Your task to perform on an android device: Open Chrome and go to settings Image 0: 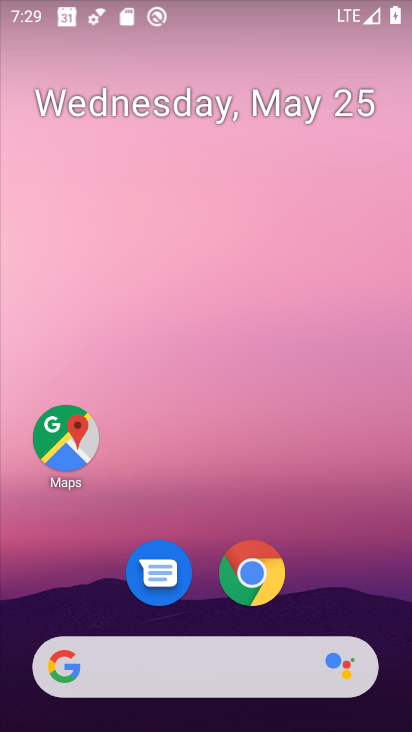
Step 0: click (245, 567)
Your task to perform on an android device: Open Chrome and go to settings Image 1: 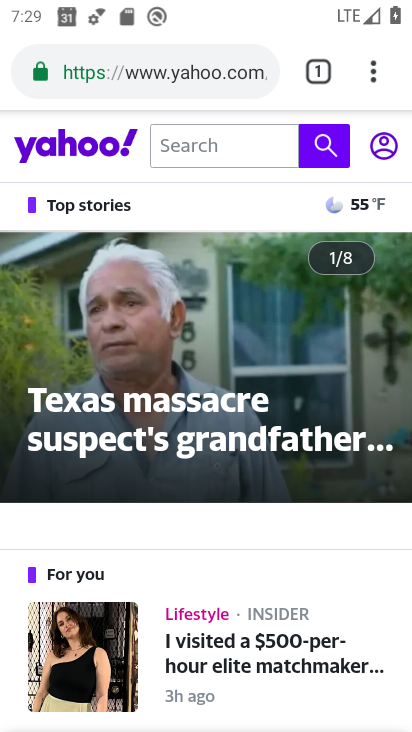
Step 1: click (374, 72)
Your task to perform on an android device: Open Chrome and go to settings Image 2: 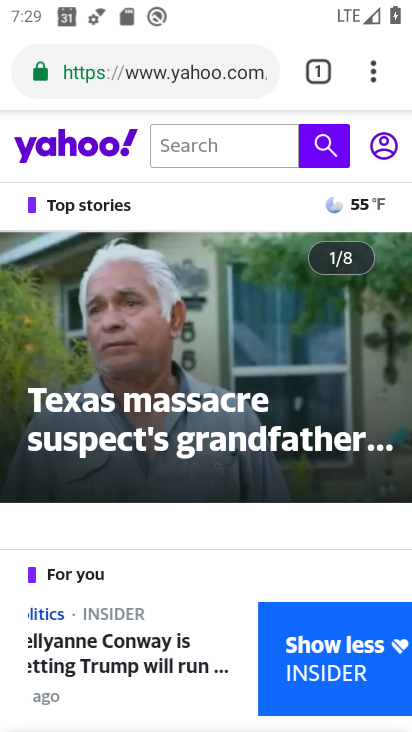
Step 2: click (374, 72)
Your task to perform on an android device: Open Chrome and go to settings Image 3: 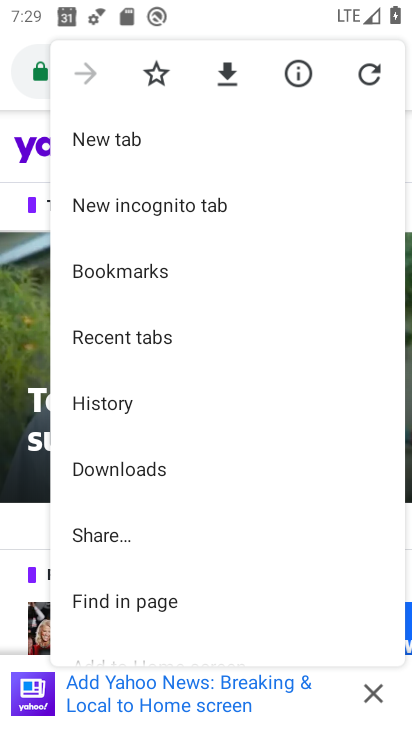
Step 3: drag from (230, 590) to (251, 211)
Your task to perform on an android device: Open Chrome and go to settings Image 4: 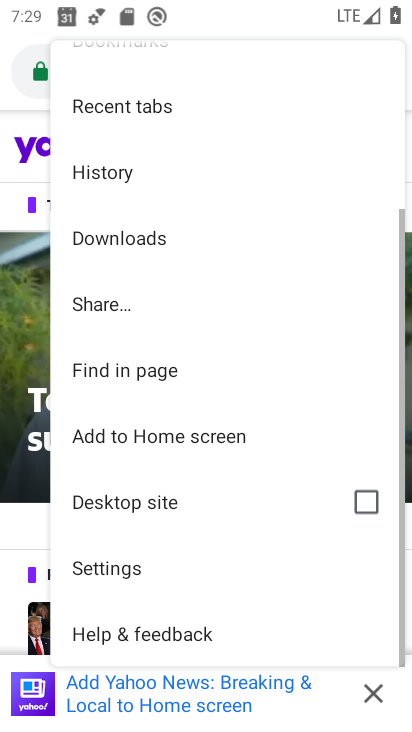
Step 4: click (85, 564)
Your task to perform on an android device: Open Chrome and go to settings Image 5: 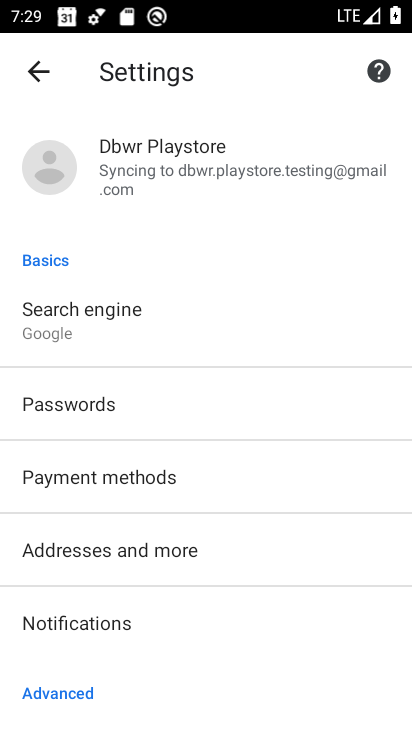
Step 5: task complete